Your task to perform on an android device: make emails show in primary in the gmail app Image 0: 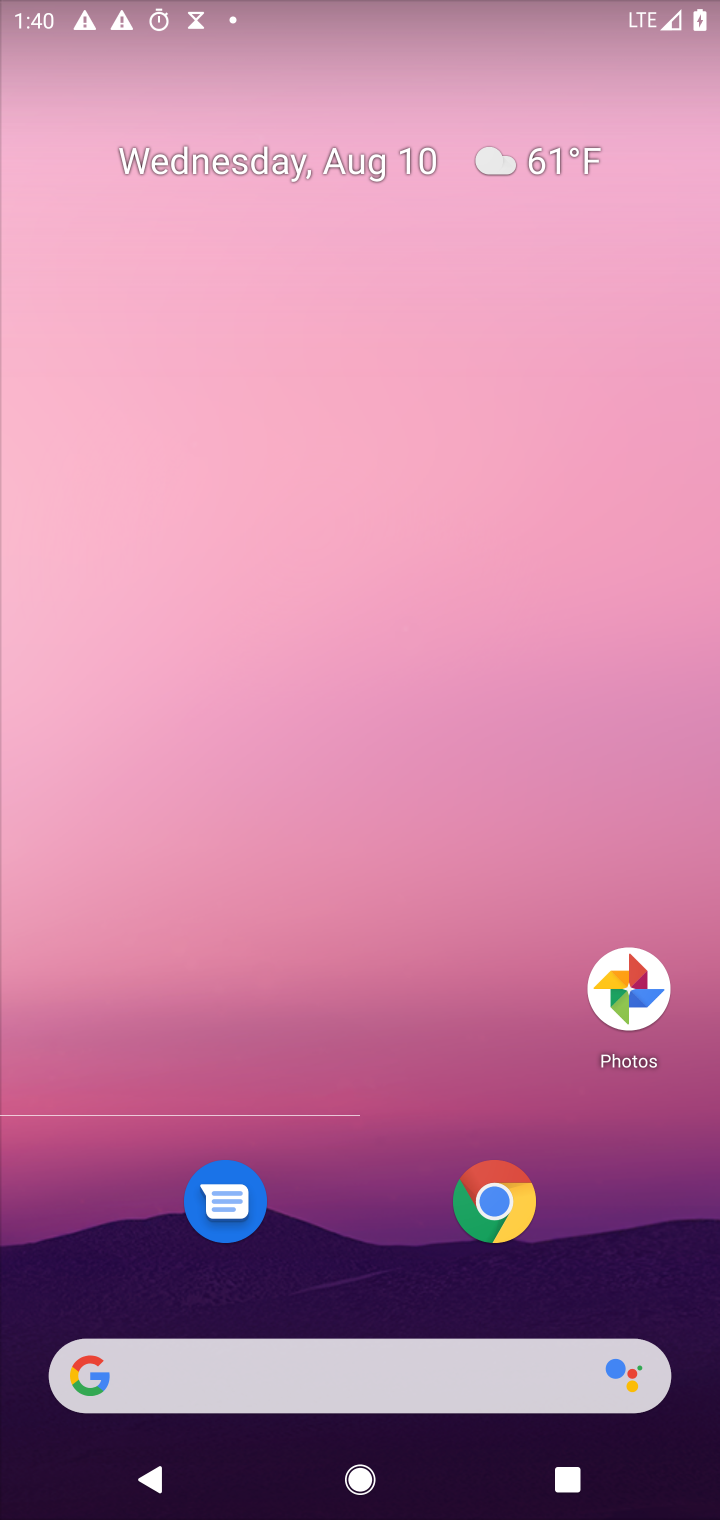
Step 0: drag from (312, 1284) to (412, 158)
Your task to perform on an android device: make emails show in primary in the gmail app Image 1: 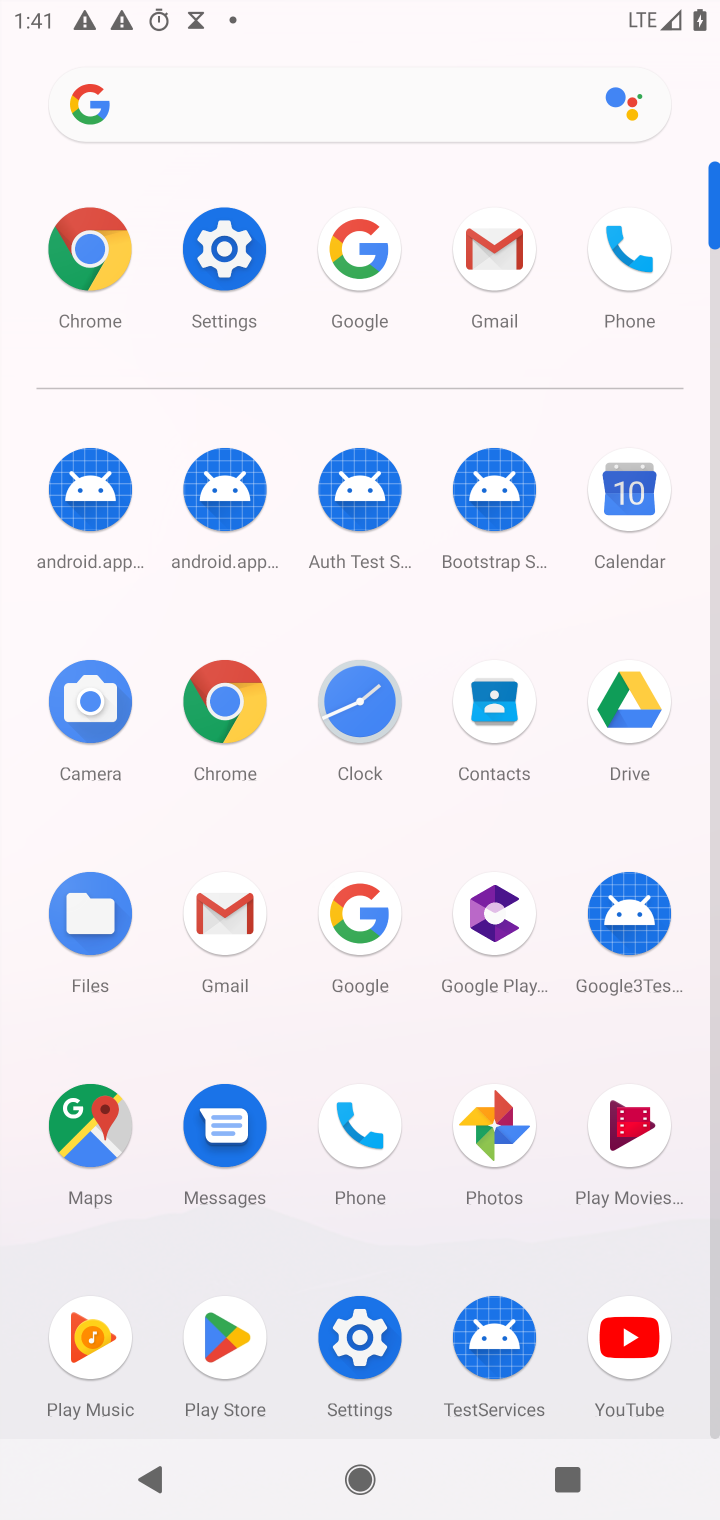
Step 1: click (482, 251)
Your task to perform on an android device: make emails show in primary in the gmail app Image 2: 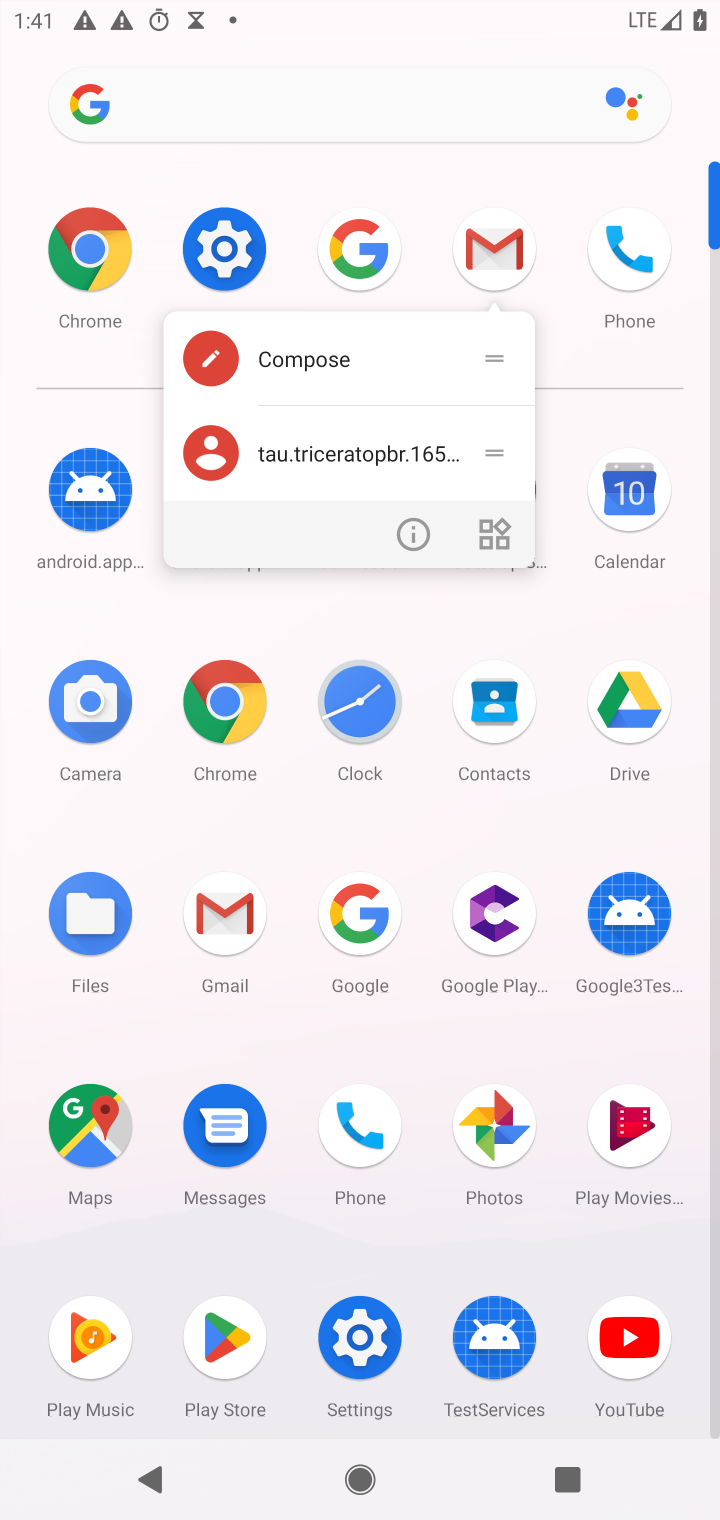
Step 2: click (482, 251)
Your task to perform on an android device: make emails show in primary in the gmail app Image 3: 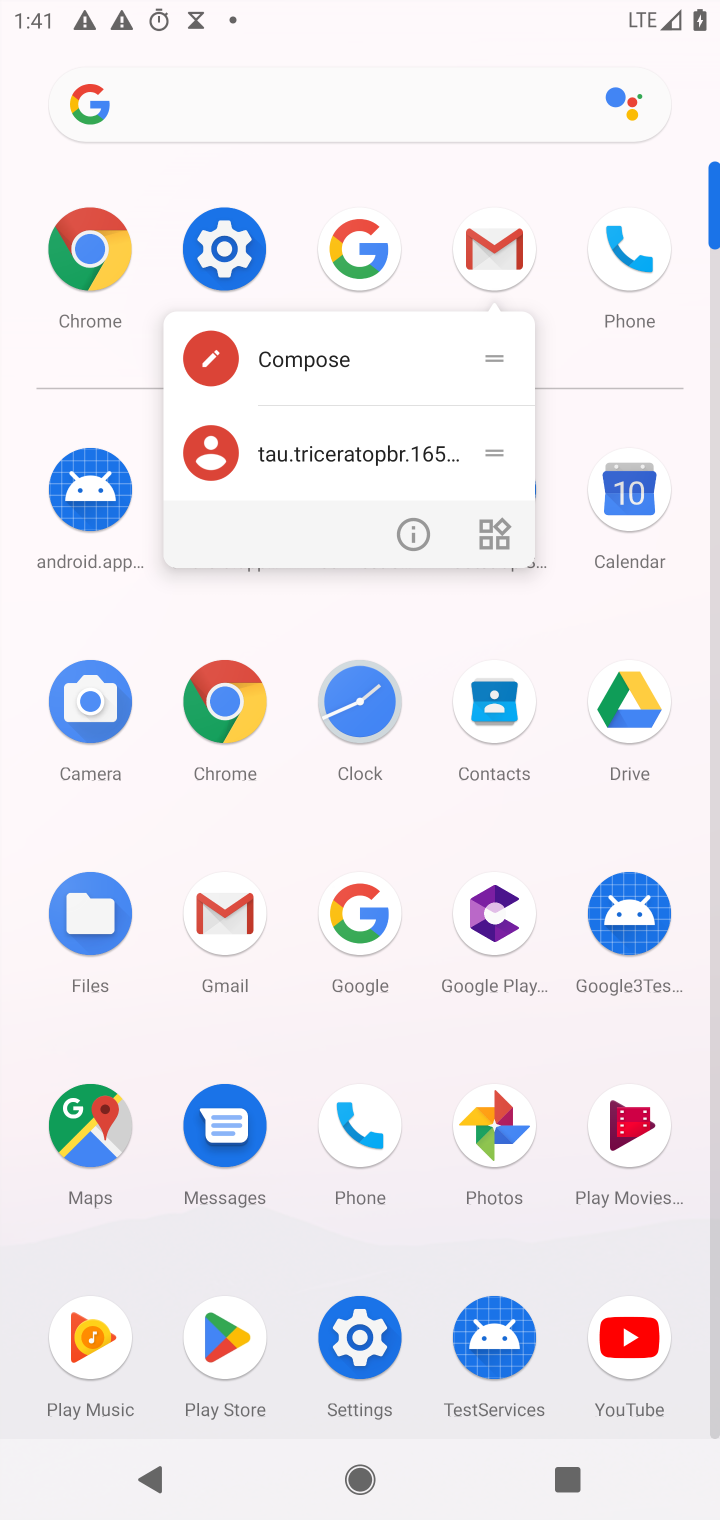
Step 3: click (480, 256)
Your task to perform on an android device: make emails show in primary in the gmail app Image 4: 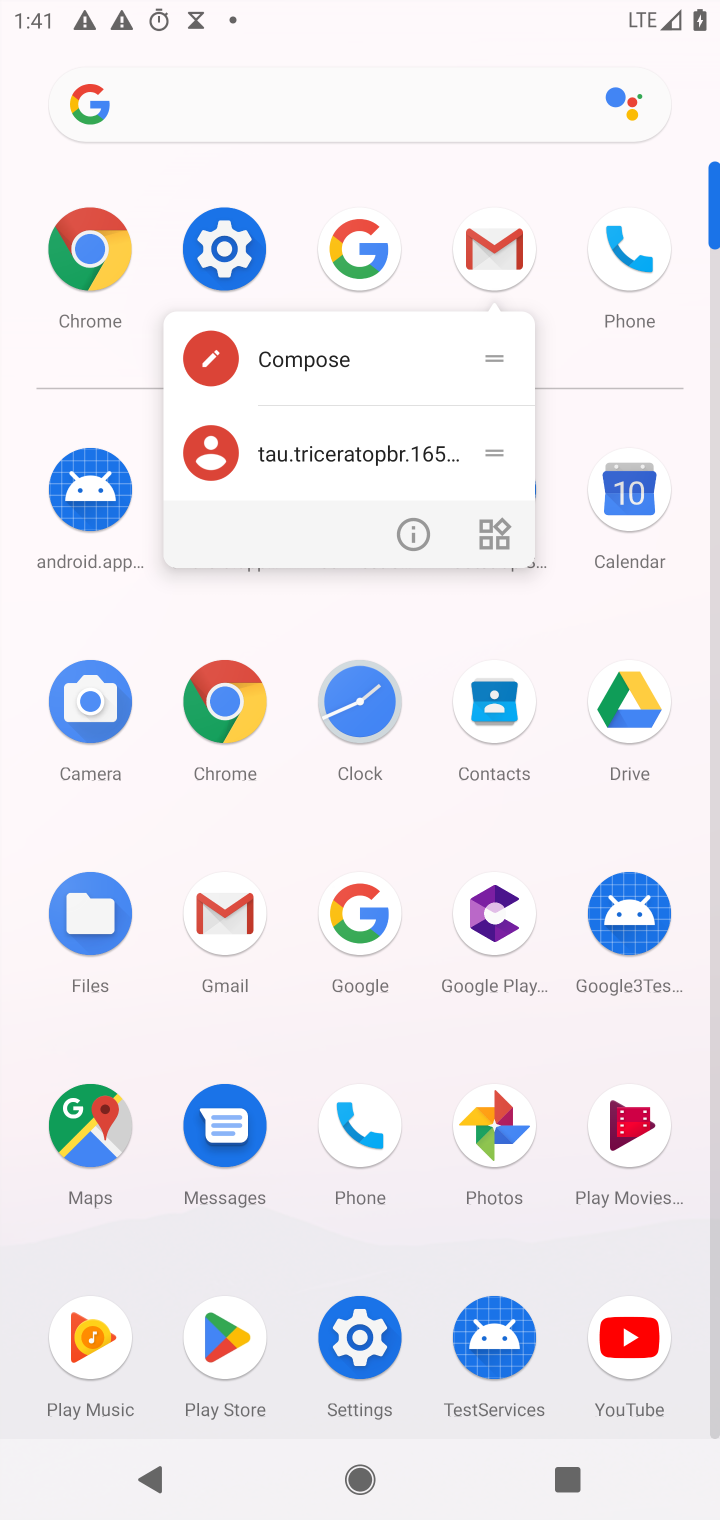
Step 4: click (502, 246)
Your task to perform on an android device: make emails show in primary in the gmail app Image 5: 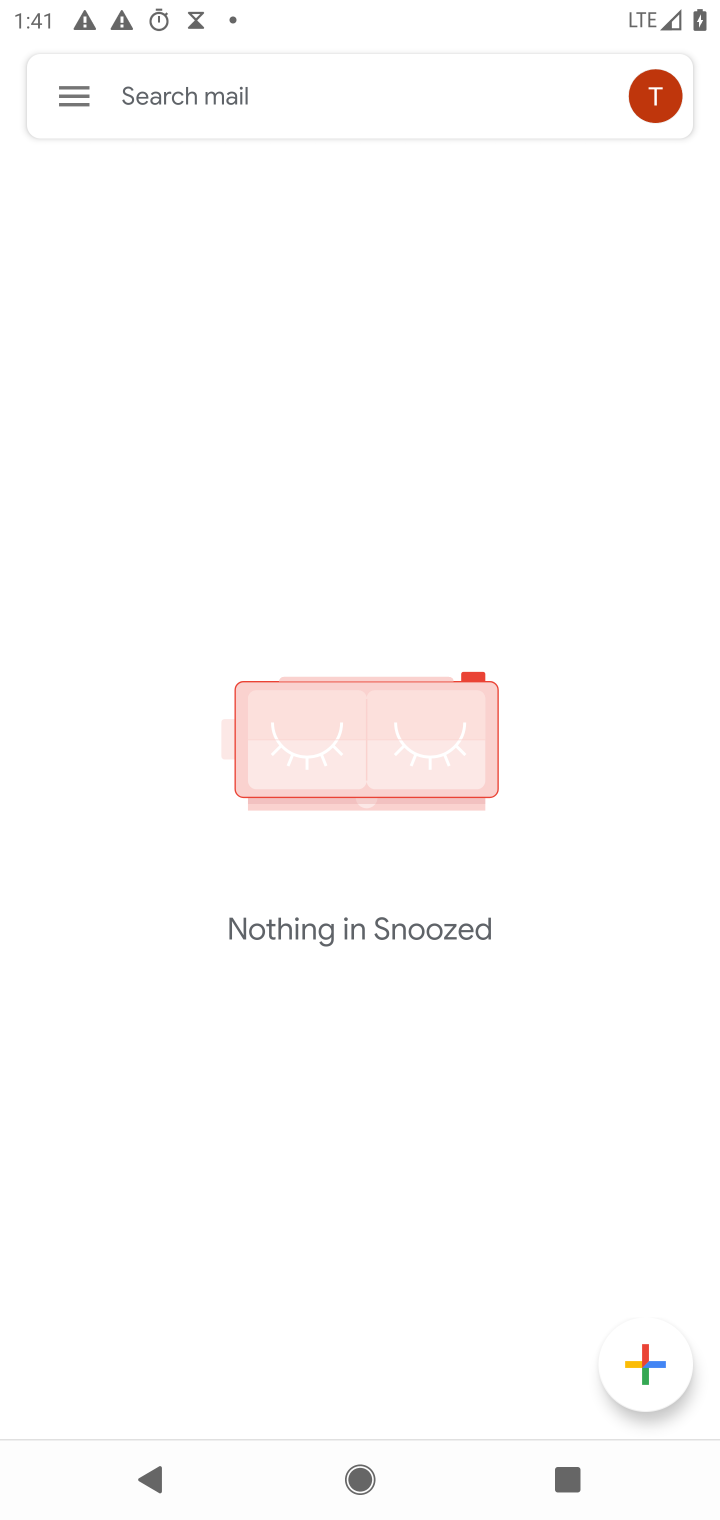
Step 5: click (61, 88)
Your task to perform on an android device: make emails show in primary in the gmail app Image 6: 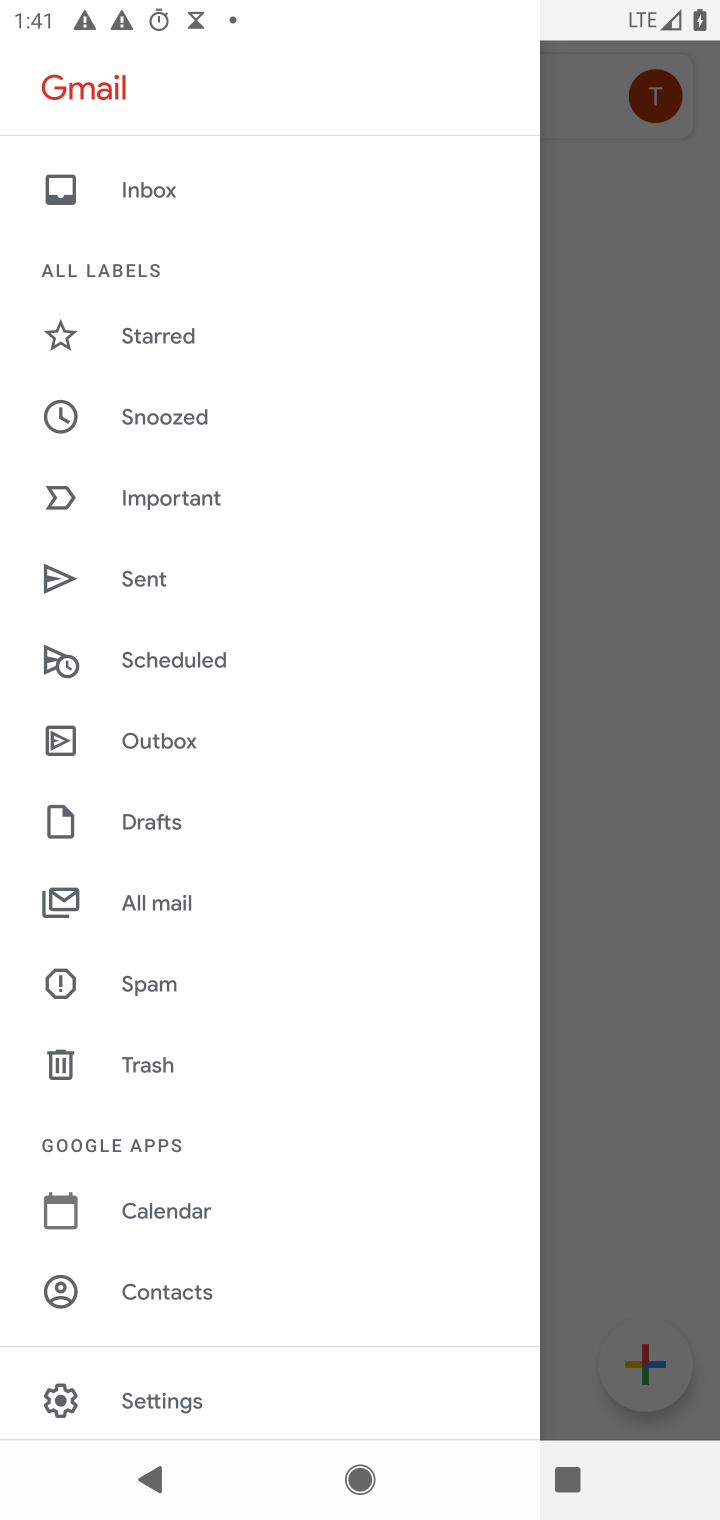
Step 6: click (152, 1398)
Your task to perform on an android device: make emails show in primary in the gmail app Image 7: 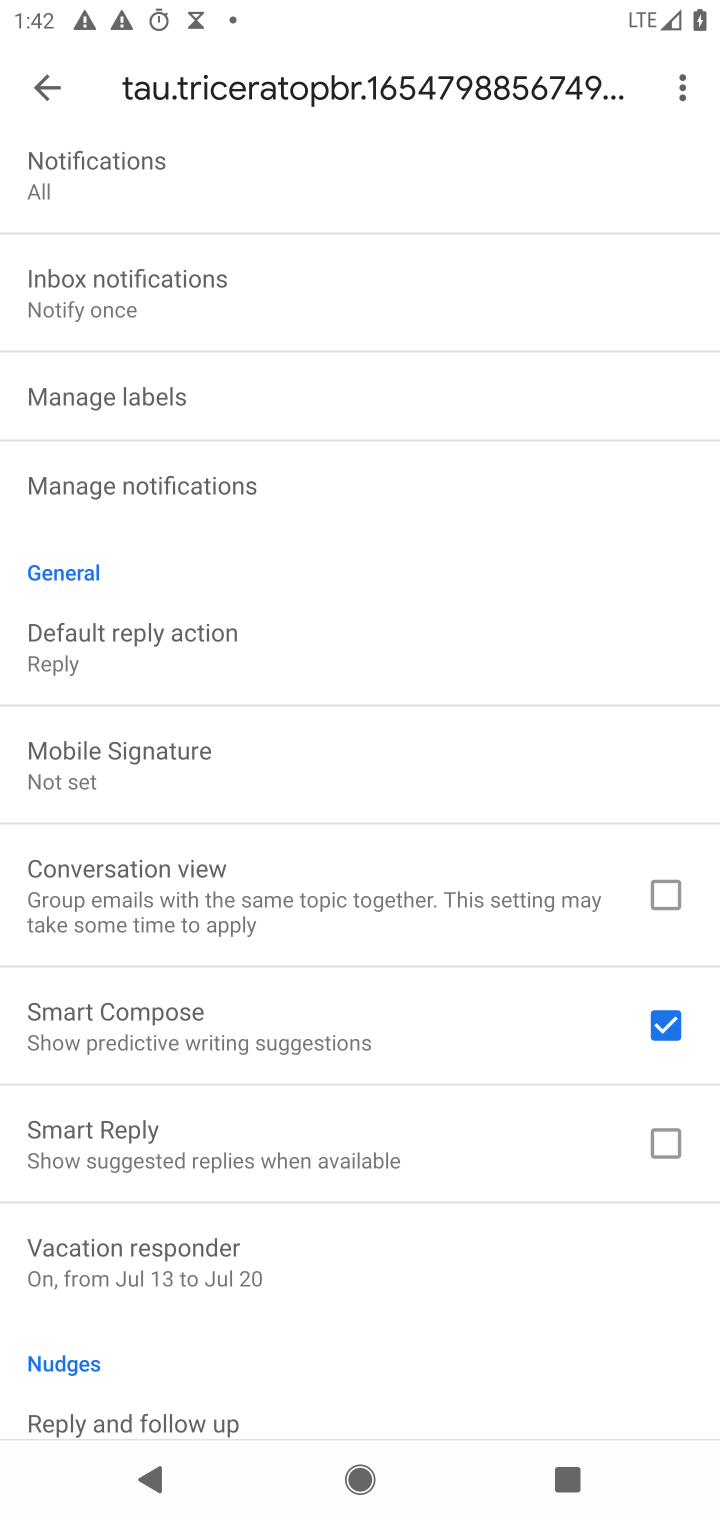
Step 7: task complete